Your task to perform on an android device: toggle data saver in the chrome app Image 0: 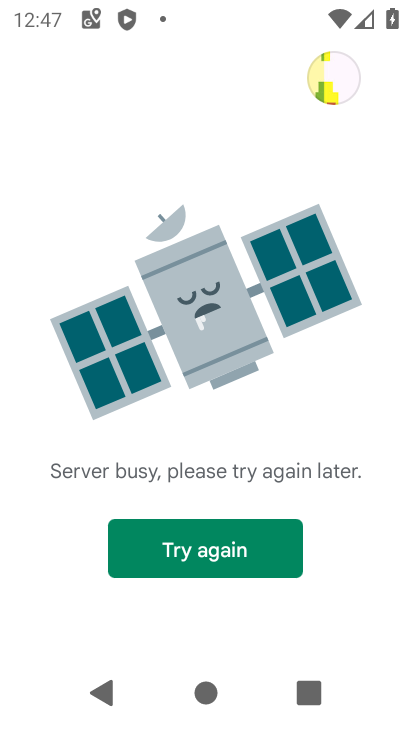
Step 0: press home button
Your task to perform on an android device: toggle data saver in the chrome app Image 1: 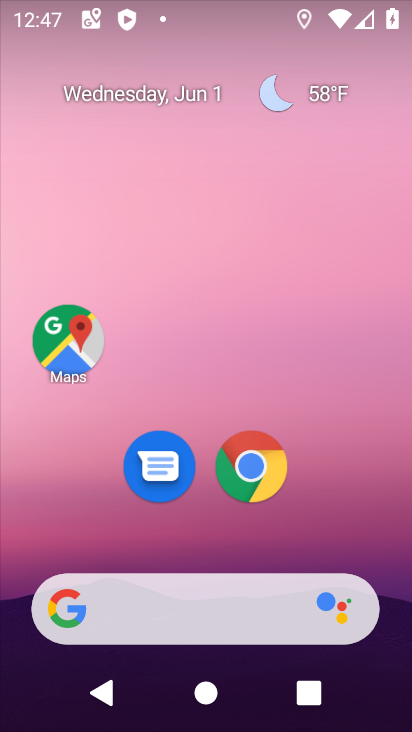
Step 1: click (267, 471)
Your task to perform on an android device: toggle data saver in the chrome app Image 2: 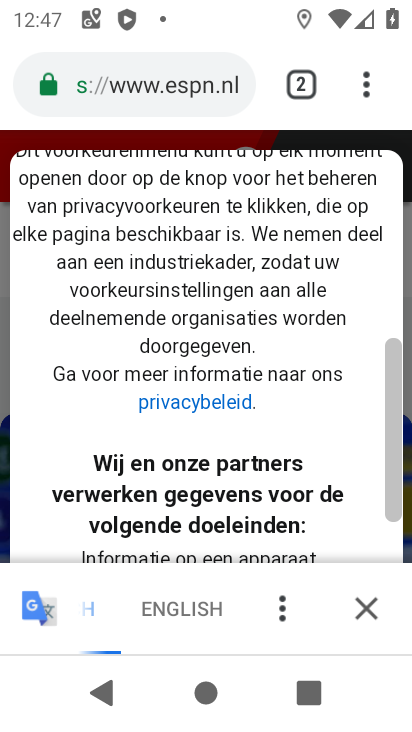
Step 2: click (366, 96)
Your task to perform on an android device: toggle data saver in the chrome app Image 3: 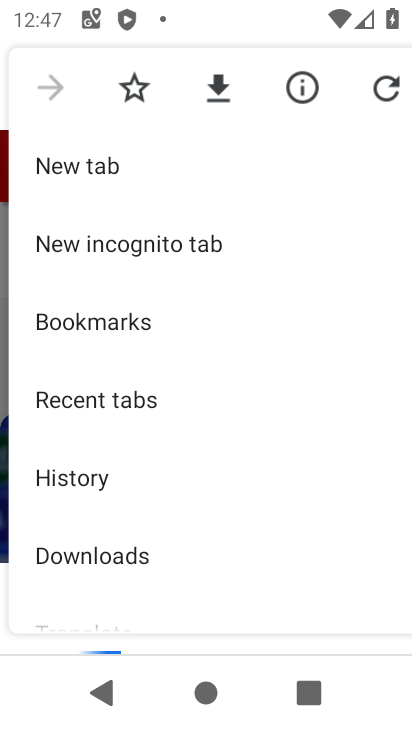
Step 3: drag from (205, 520) to (178, 199)
Your task to perform on an android device: toggle data saver in the chrome app Image 4: 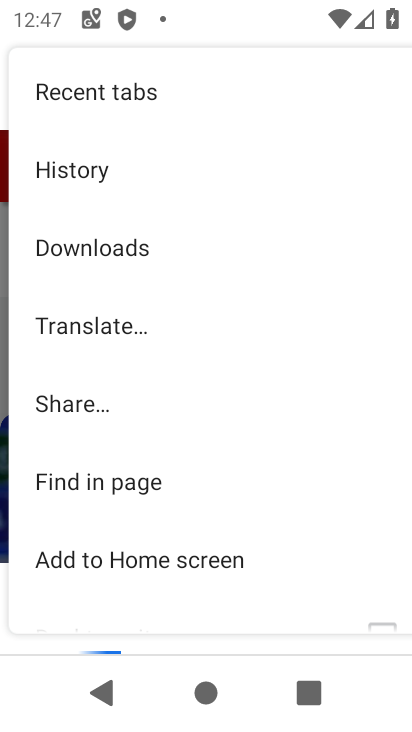
Step 4: drag from (153, 501) to (124, 204)
Your task to perform on an android device: toggle data saver in the chrome app Image 5: 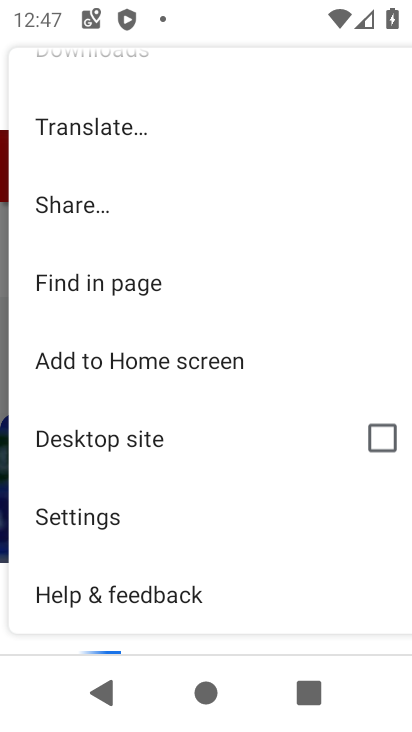
Step 5: click (133, 519)
Your task to perform on an android device: toggle data saver in the chrome app Image 6: 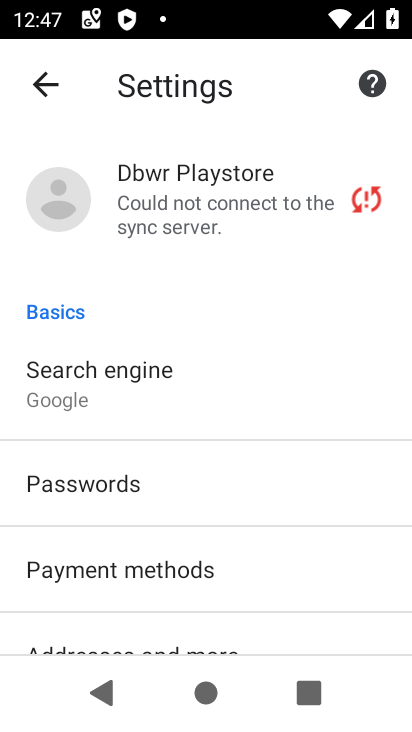
Step 6: drag from (229, 617) to (177, 336)
Your task to perform on an android device: toggle data saver in the chrome app Image 7: 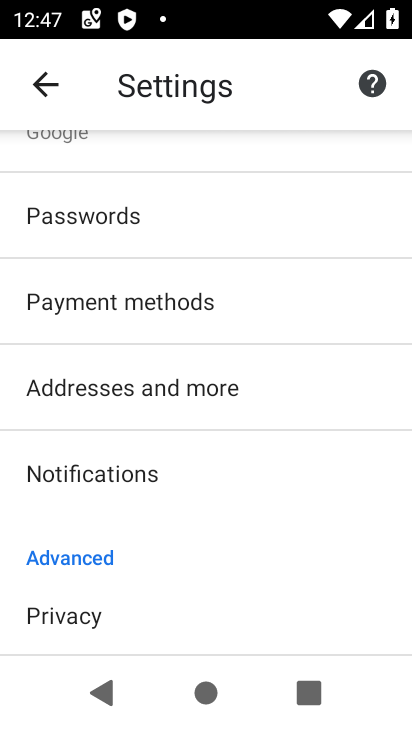
Step 7: drag from (217, 555) to (167, 267)
Your task to perform on an android device: toggle data saver in the chrome app Image 8: 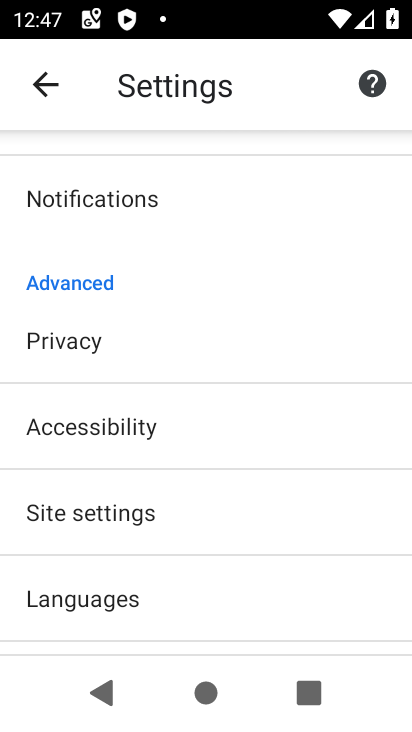
Step 8: drag from (213, 616) to (161, 353)
Your task to perform on an android device: toggle data saver in the chrome app Image 9: 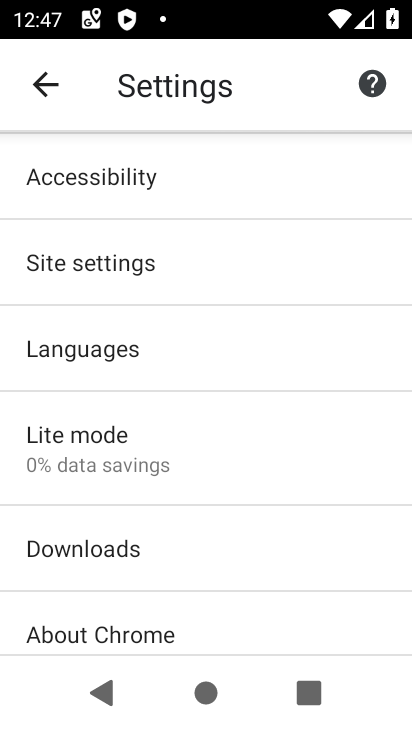
Step 9: click (171, 452)
Your task to perform on an android device: toggle data saver in the chrome app Image 10: 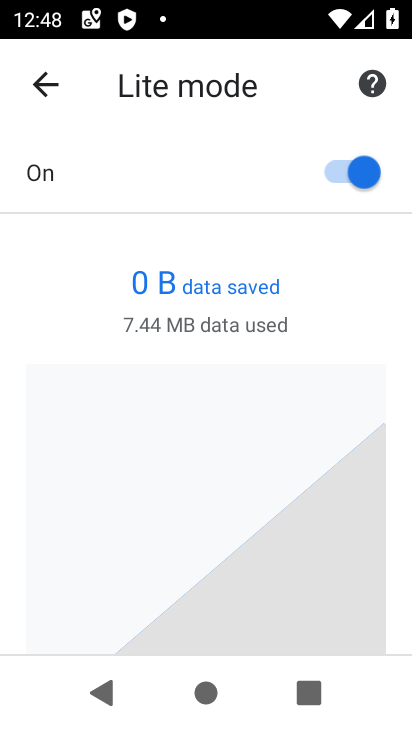
Step 10: click (348, 170)
Your task to perform on an android device: toggle data saver in the chrome app Image 11: 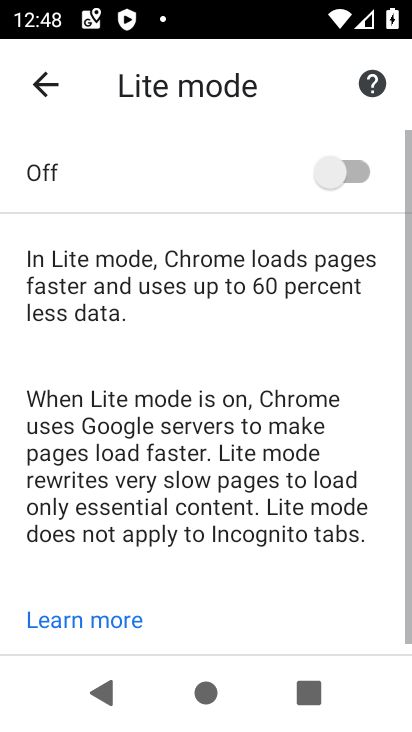
Step 11: task complete